Your task to perform on an android device: Turn off the flashlight Image 0: 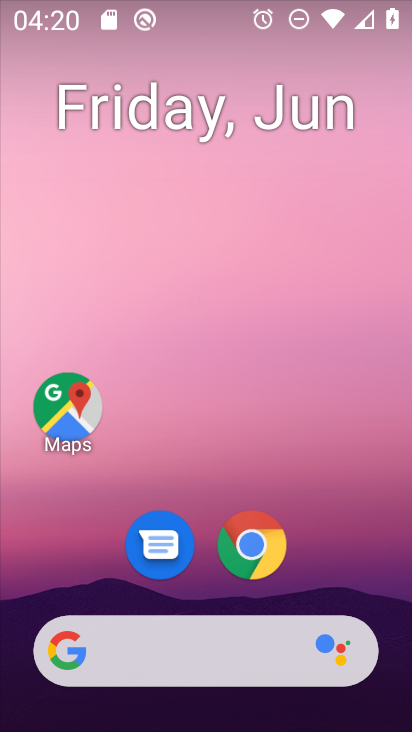
Step 0: drag from (319, 563) to (361, 9)
Your task to perform on an android device: Turn off the flashlight Image 1: 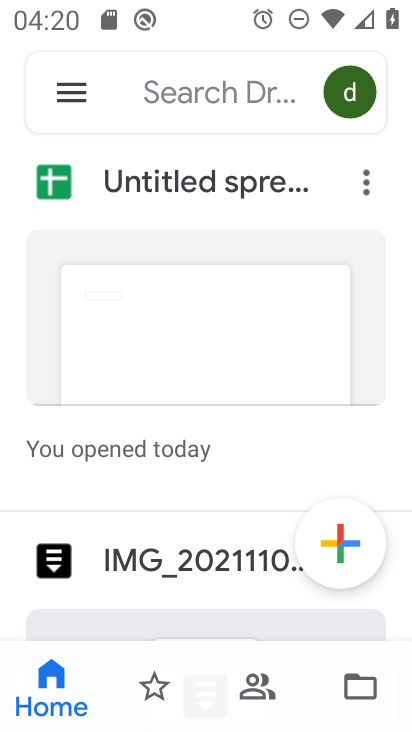
Step 1: press home button
Your task to perform on an android device: Turn off the flashlight Image 2: 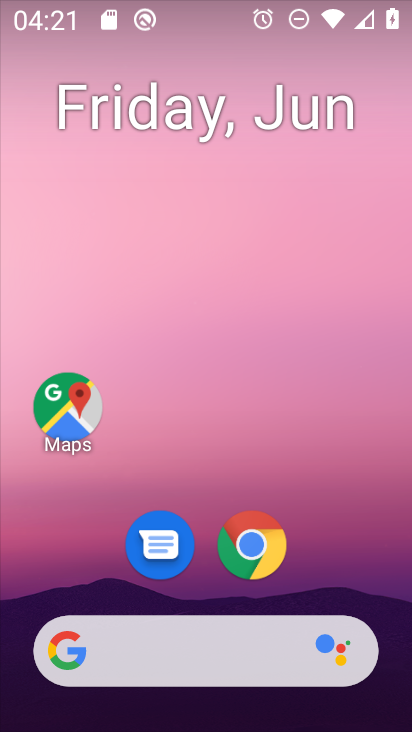
Step 2: drag from (328, 558) to (407, 189)
Your task to perform on an android device: Turn off the flashlight Image 3: 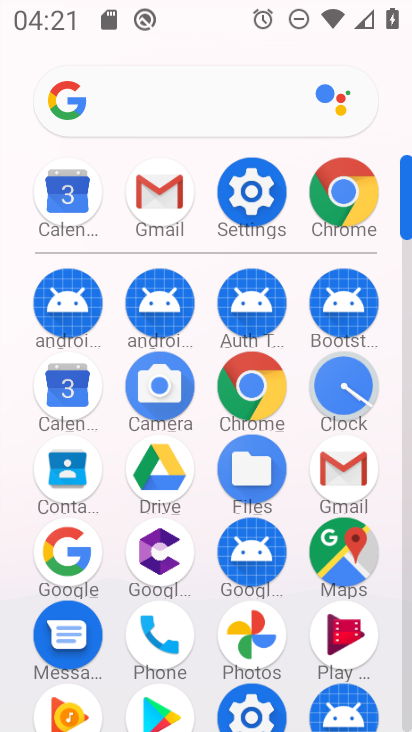
Step 3: click (258, 198)
Your task to perform on an android device: Turn off the flashlight Image 4: 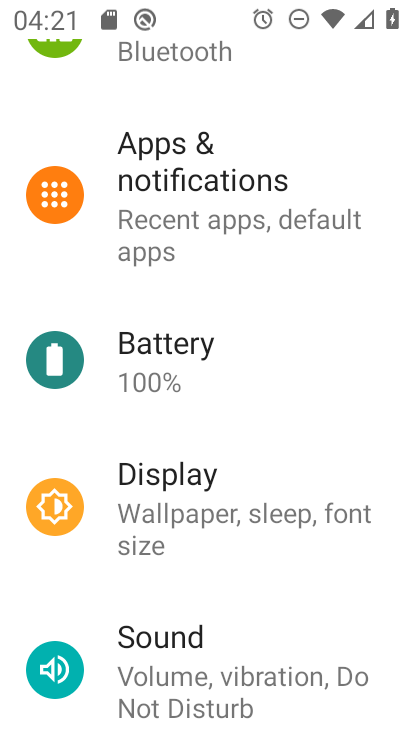
Step 4: task complete